Your task to perform on an android device: turn on airplane mode Image 0: 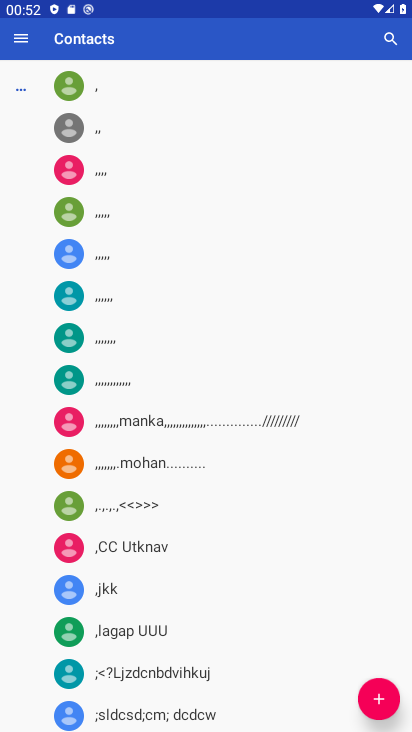
Step 0: press home button
Your task to perform on an android device: turn on airplane mode Image 1: 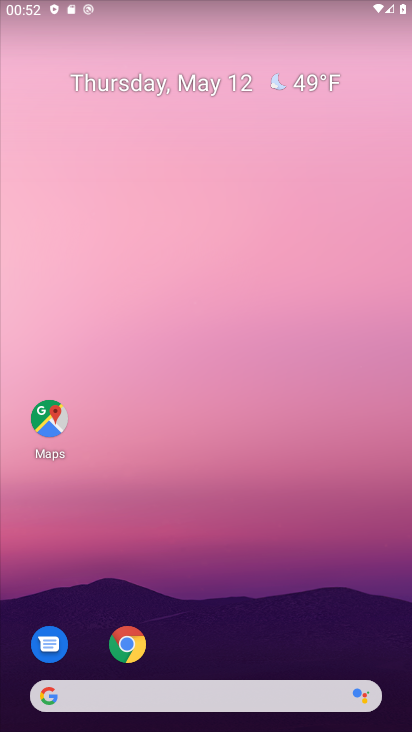
Step 1: drag from (272, 601) to (209, 72)
Your task to perform on an android device: turn on airplane mode Image 2: 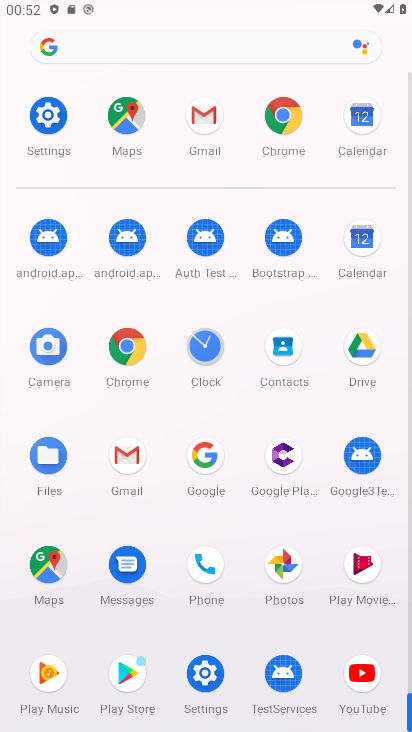
Step 2: click (44, 117)
Your task to perform on an android device: turn on airplane mode Image 3: 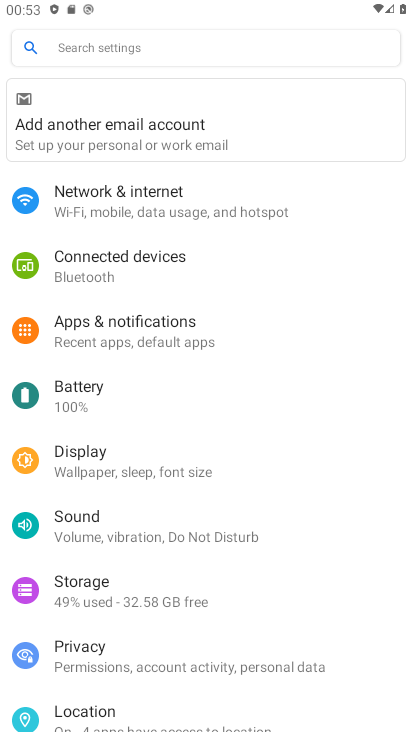
Step 3: click (104, 192)
Your task to perform on an android device: turn on airplane mode Image 4: 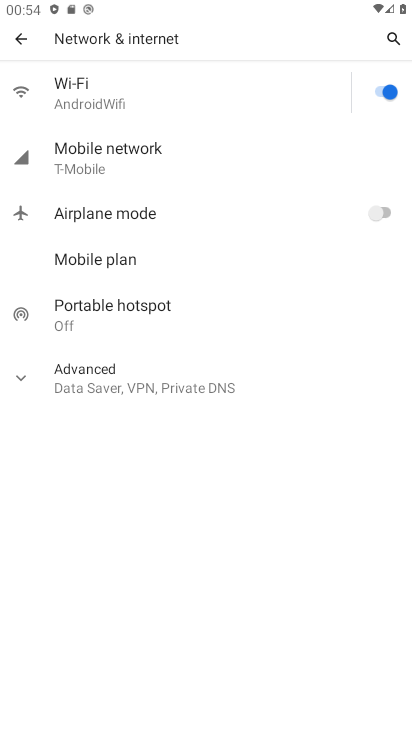
Step 4: click (379, 211)
Your task to perform on an android device: turn on airplane mode Image 5: 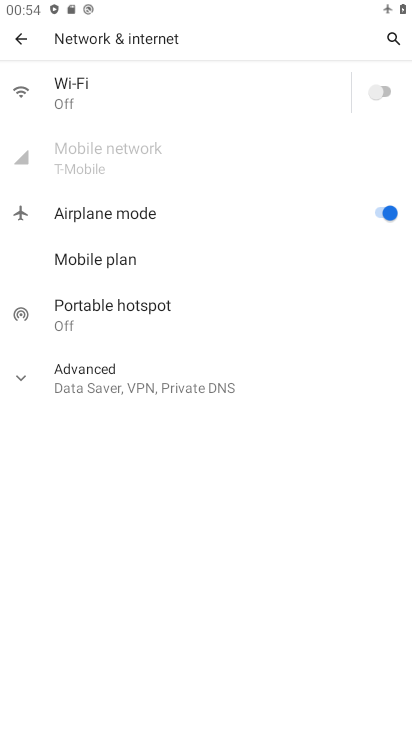
Step 5: task complete